Your task to perform on an android device: What's on my calendar today? Image 0: 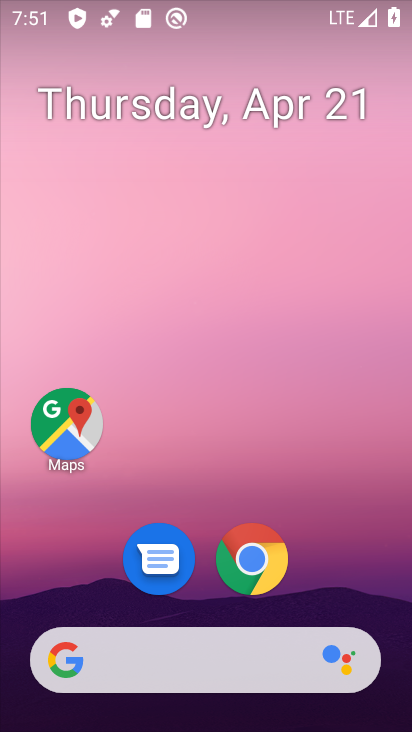
Step 0: drag from (350, 544) to (325, 100)
Your task to perform on an android device: What's on my calendar today? Image 1: 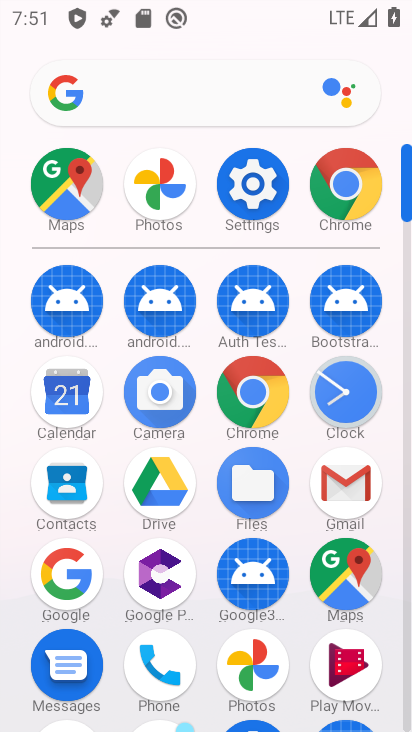
Step 1: click (59, 414)
Your task to perform on an android device: What's on my calendar today? Image 2: 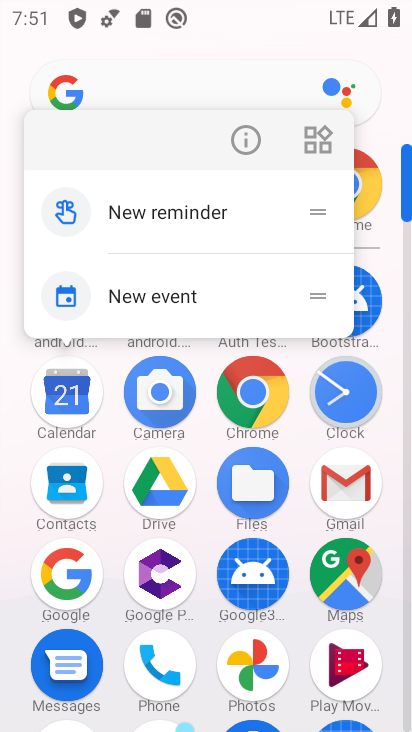
Step 2: click (59, 414)
Your task to perform on an android device: What's on my calendar today? Image 3: 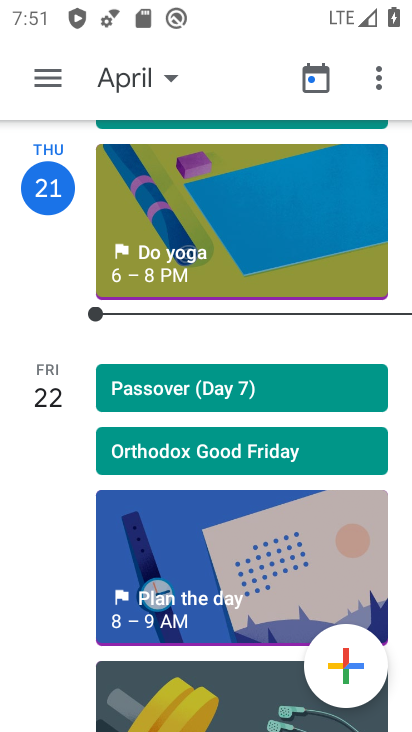
Step 3: task complete